Your task to perform on an android device: What's on my calendar tomorrow? Image 0: 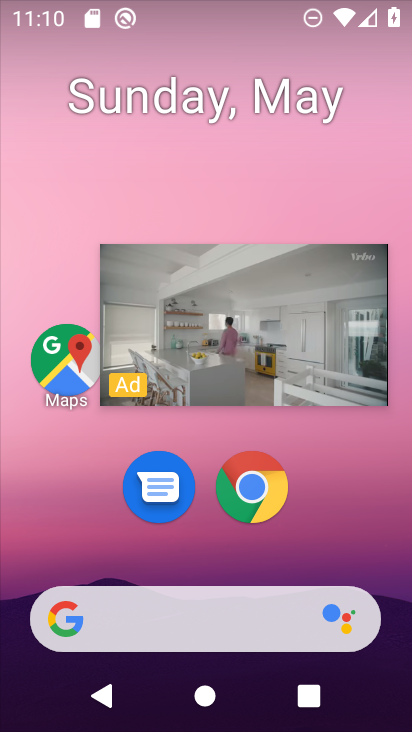
Step 0: click (354, 283)
Your task to perform on an android device: What's on my calendar tomorrow? Image 1: 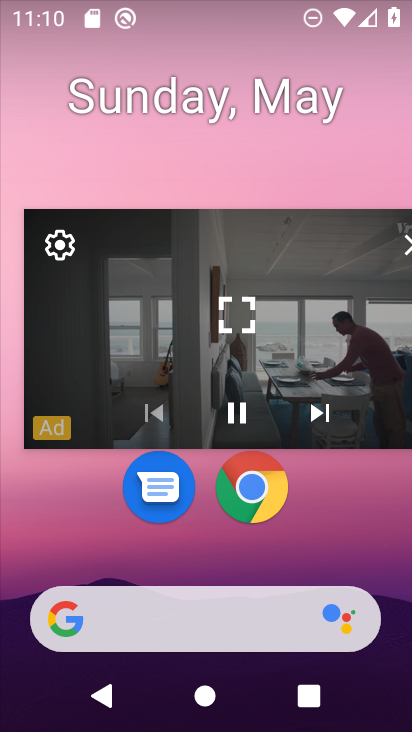
Step 1: click (407, 249)
Your task to perform on an android device: What's on my calendar tomorrow? Image 2: 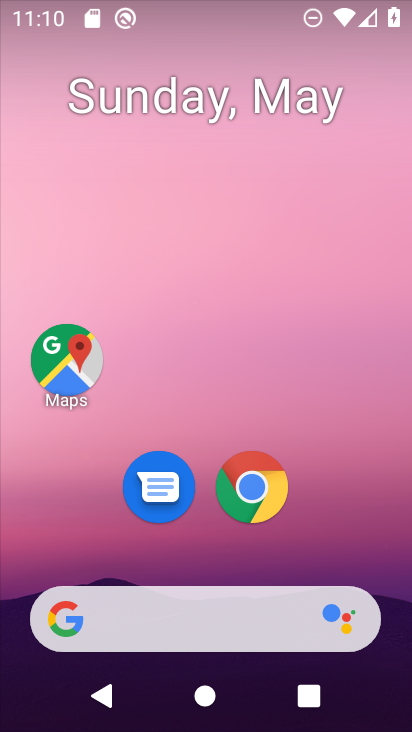
Step 2: drag from (338, 548) to (288, 88)
Your task to perform on an android device: What's on my calendar tomorrow? Image 3: 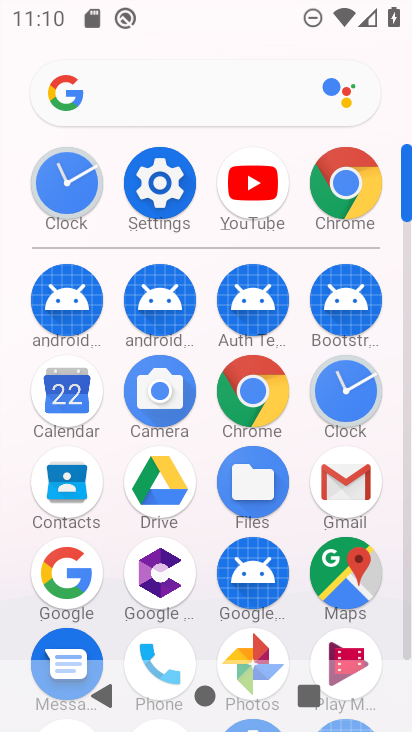
Step 3: click (69, 394)
Your task to perform on an android device: What's on my calendar tomorrow? Image 4: 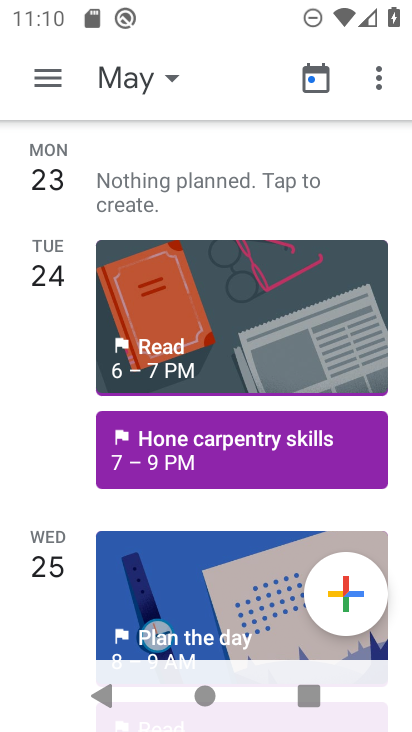
Step 4: task complete